Your task to perform on an android device: Show me productivity apps on the Play Store Image 0: 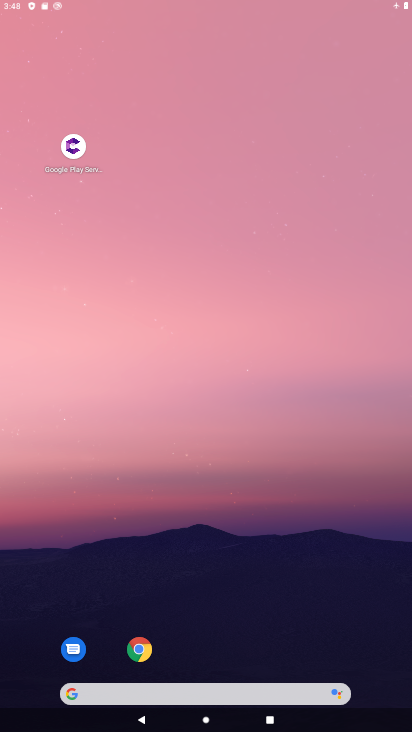
Step 0: click (253, 81)
Your task to perform on an android device: Show me productivity apps on the Play Store Image 1: 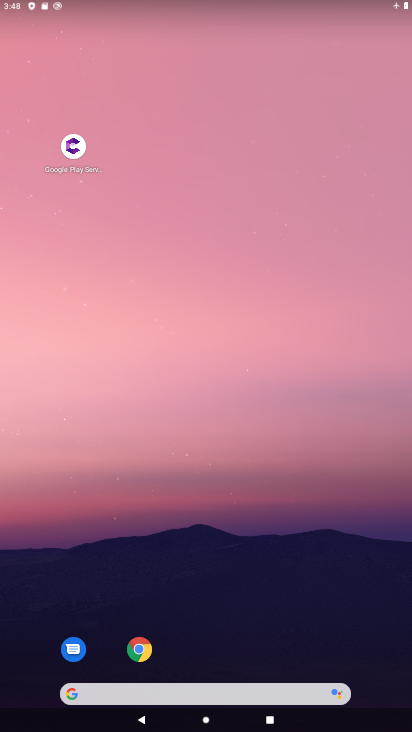
Step 1: drag from (239, 651) to (241, 0)
Your task to perform on an android device: Show me productivity apps on the Play Store Image 2: 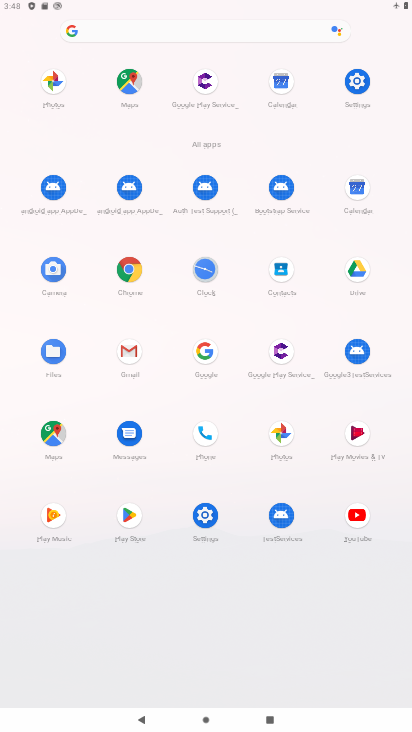
Step 2: click (120, 522)
Your task to perform on an android device: Show me productivity apps on the Play Store Image 3: 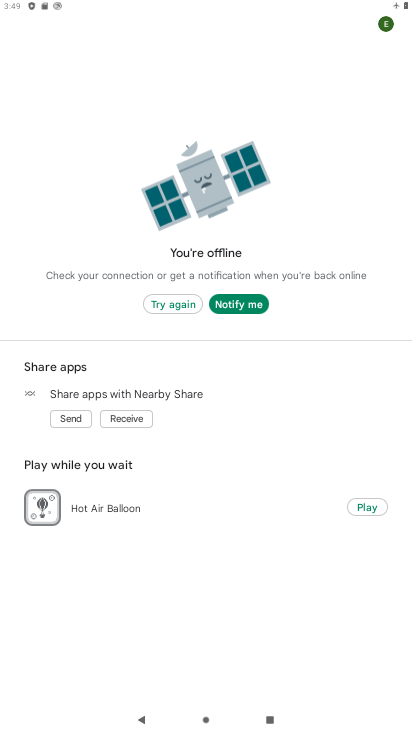
Step 3: task complete